Your task to perform on an android device: set the timer Image 0: 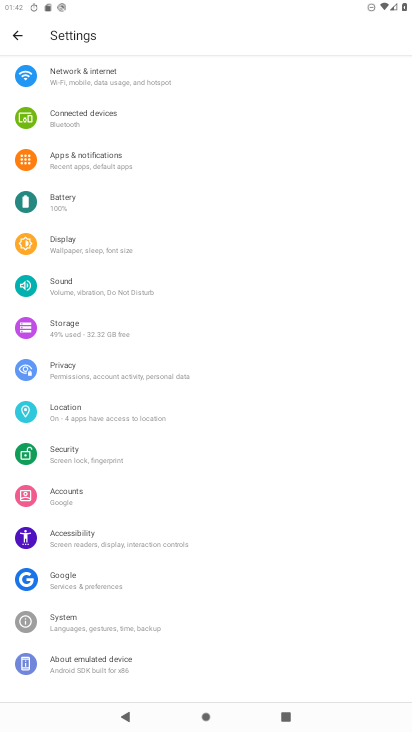
Step 0: drag from (189, 566) to (264, 285)
Your task to perform on an android device: set the timer Image 1: 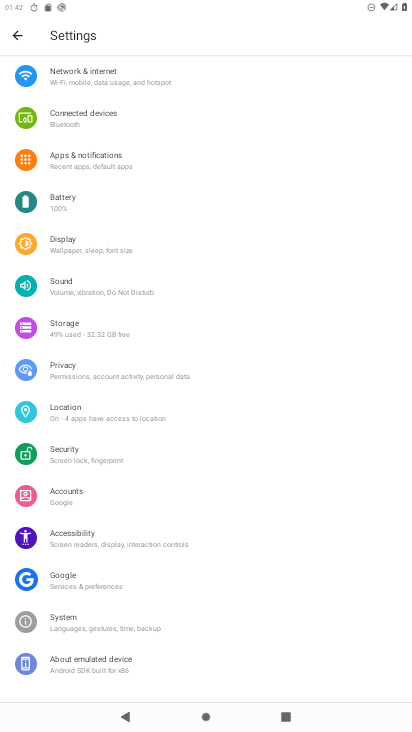
Step 1: press home button
Your task to perform on an android device: set the timer Image 2: 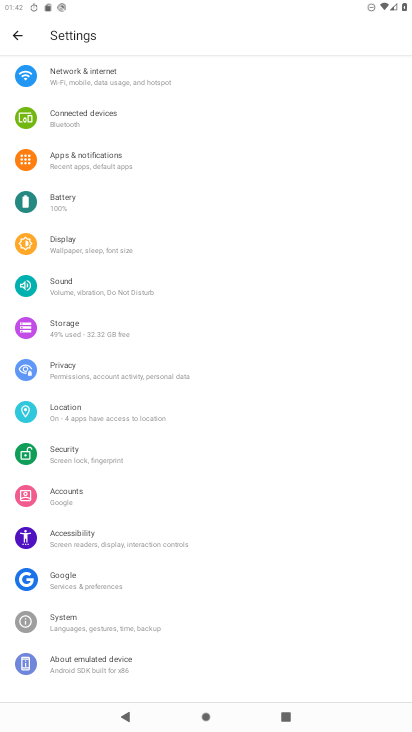
Step 2: press home button
Your task to perform on an android device: set the timer Image 3: 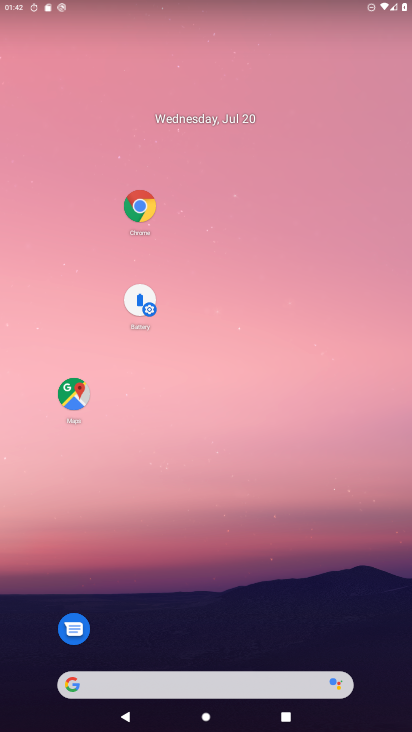
Step 3: drag from (199, 547) to (215, 259)
Your task to perform on an android device: set the timer Image 4: 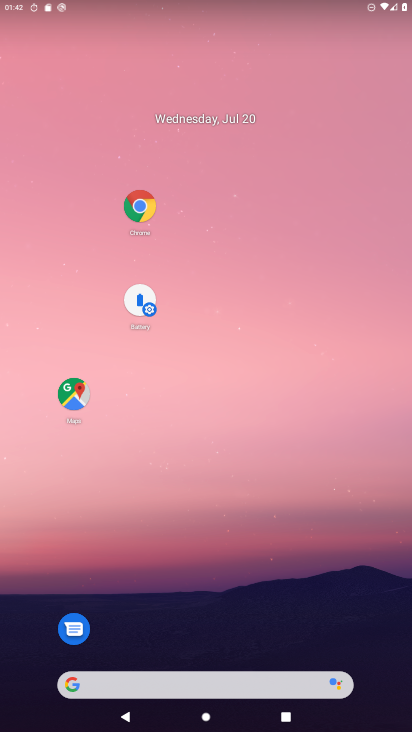
Step 4: drag from (177, 641) to (328, 5)
Your task to perform on an android device: set the timer Image 5: 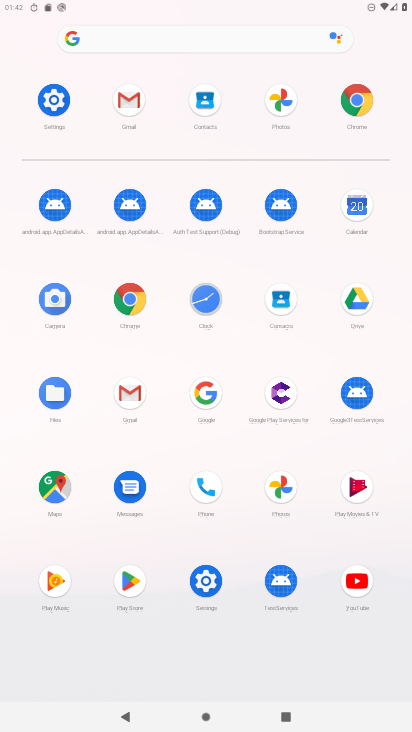
Step 5: click (214, 296)
Your task to perform on an android device: set the timer Image 6: 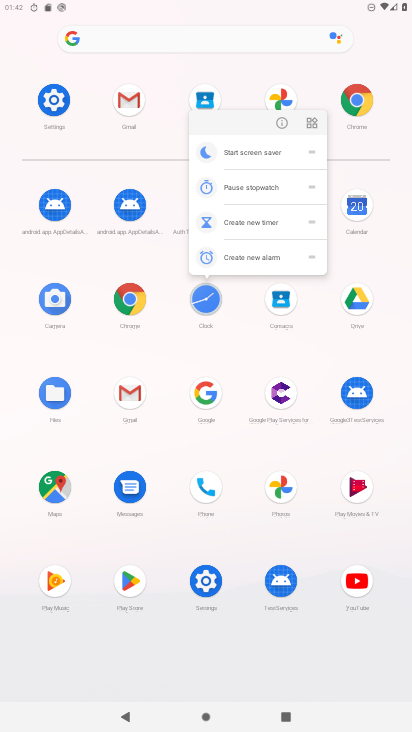
Step 6: click (281, 117)
Your task to perform on an android device: set the timer Image 7: 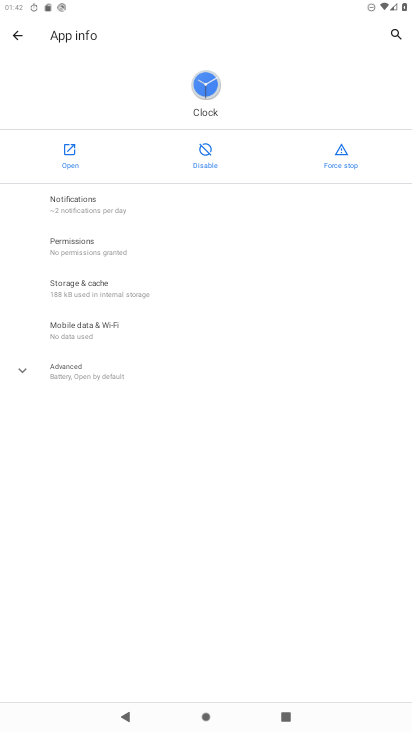
Step 7: click (60, 148)
Your task to perform on an android device: set the timer Image 8: 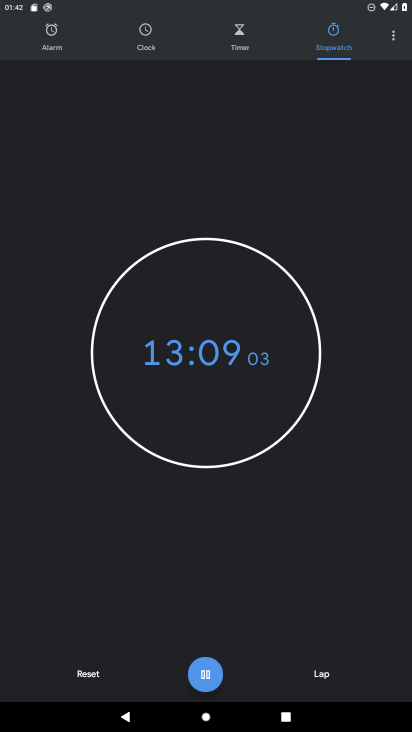
Step 8: drag from (193, 615) to (238, 325)
Your task to perform on an android device: set the timer Image 9: 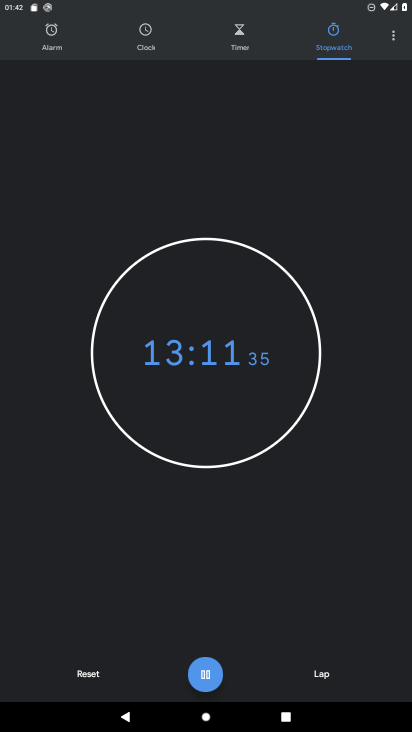
Step 9: click (96, 674)
Your task to perform on an android device: set the timer Image 10: 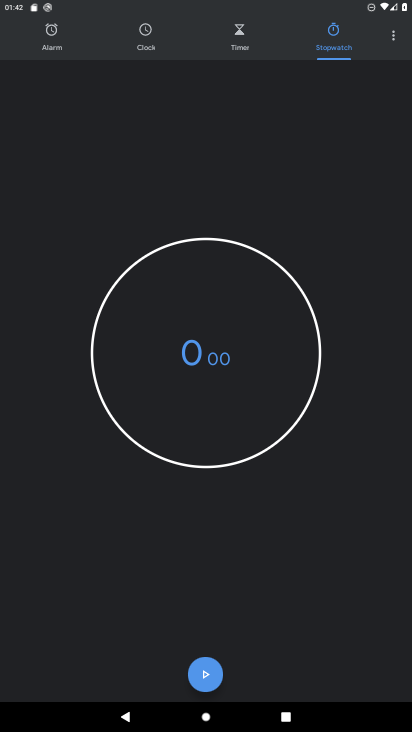
Step 10: click (246, 35)
Your task to perform on an android device: set the timer Image 11: 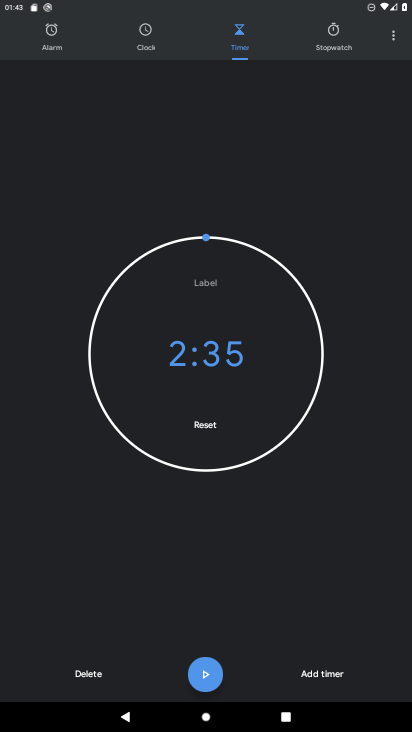
Step 11: click (198, 681)
Your task to perform on an android device: set the timer Image 12: 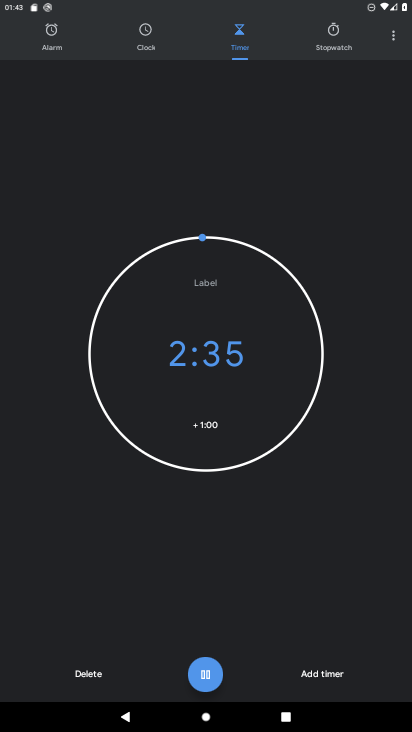
Step 12: task complete